Your task to perform on an android device: turn notification dots on Image 0: 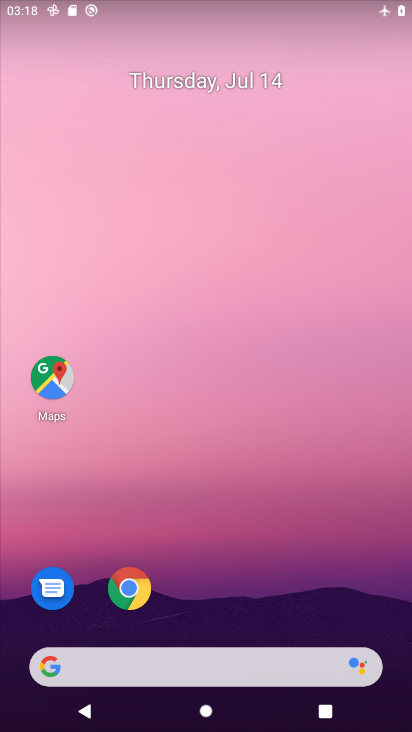
Step 0: drag from (346, 621) to (286, 170)
Your task to perform on an android device: turn notification dots on Image 1: 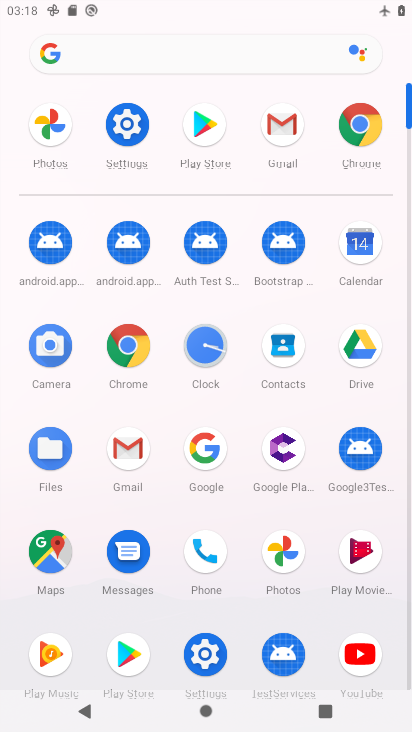
Step 1: click (127, 119)
Your task to perform on an android device: turn notification dots on Image 2: 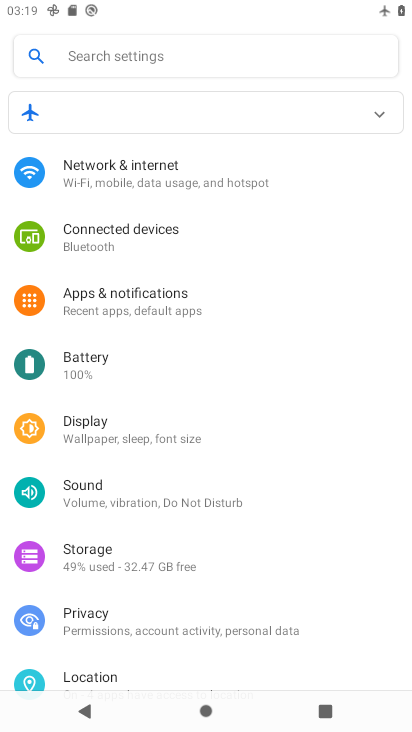
Step 2: click (169, 310)
Your task to perform on an android device: turn notification dots on Image 3: 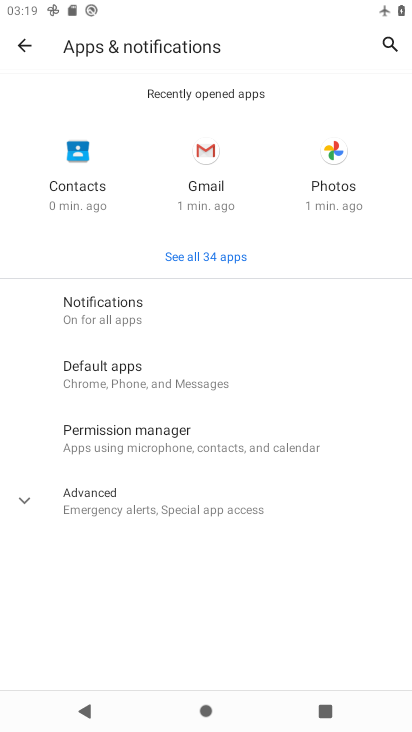
Step 3: click (183, 503)
Your task to perform on an android device: turn notification dots on Image 4: 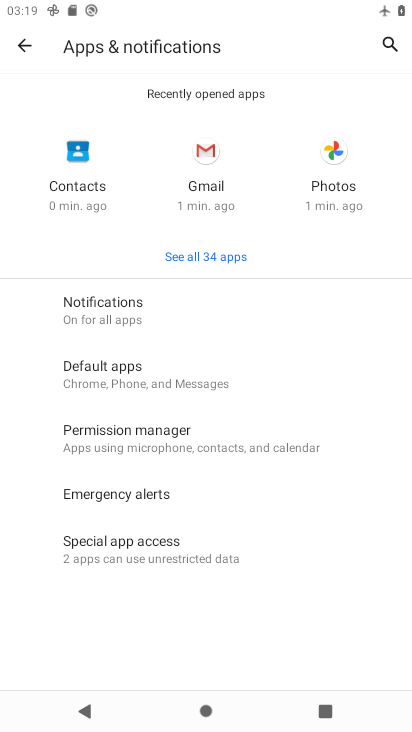
Step 4: click (198, 308)
Your task to perform on an android device: turn notification dots on Image 5: 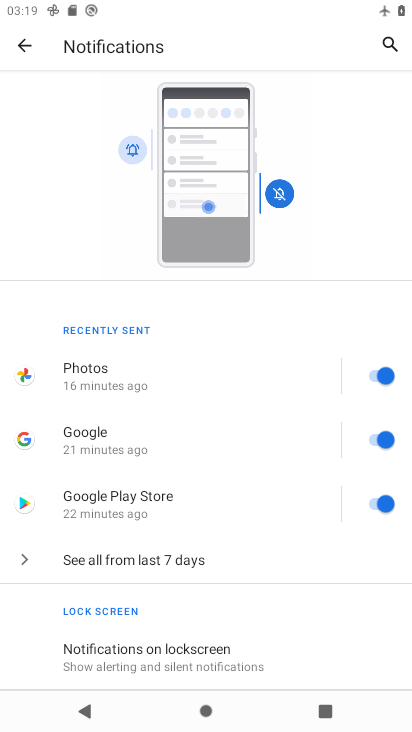
Step 5: drag from (255, 620) to (209, 315)
Your task to perform on an android device: turn notification dots on Image 6: 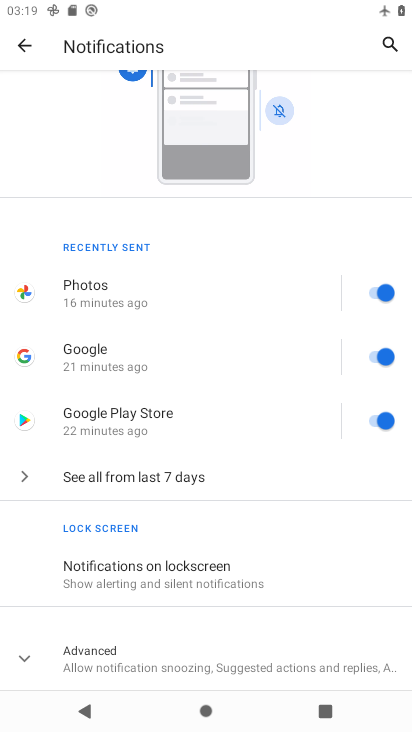
Step 6: click (289, 663)
Your task to perform on an android device: turn notification dots on Image 7: 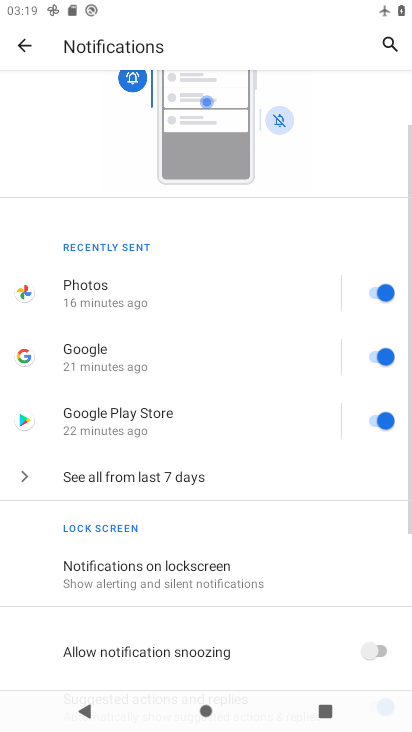
Step 7: drag from (261, 615) to (219, 275)
Your task to perform on an android device: turn notification dots on Image 8: 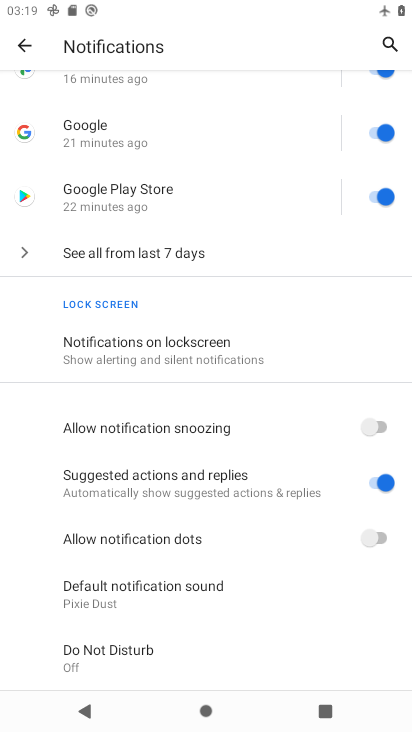
Step 8: click (374, 540)
Your task to perform on an android device: turn notification dots on Image 9: 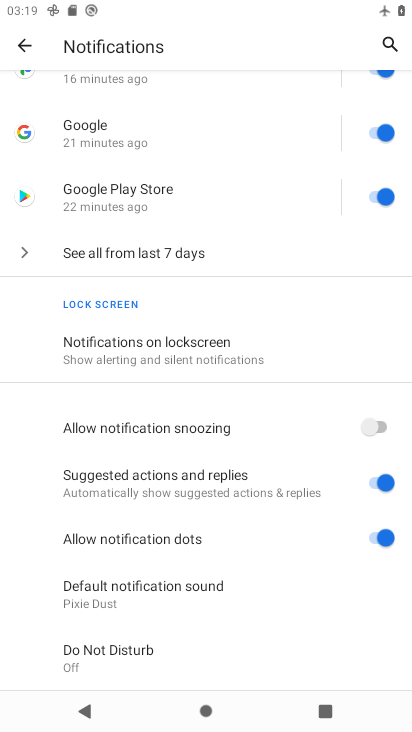
Step 9: task complete